Your task to perform on an android device: toggle translation in the chrome app Image 0: 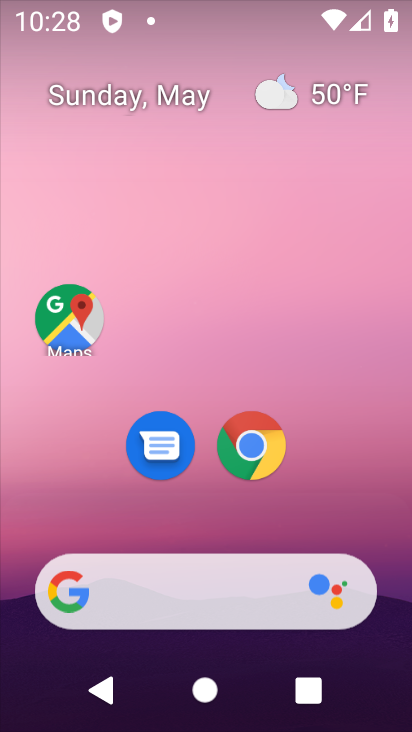
Step 0: click (260, 442)
Your task to perform on an android device: toggle translation in the chrome app Image 1: 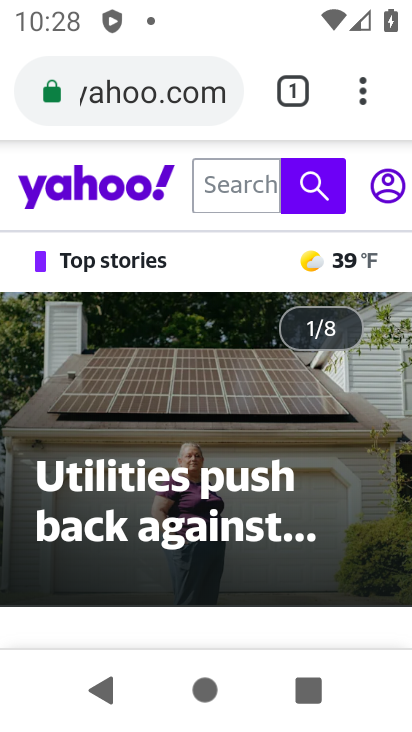
Step 1: click (374, 97)
Your task to perform on an android device: toggle translation in the chrome app Image 2: 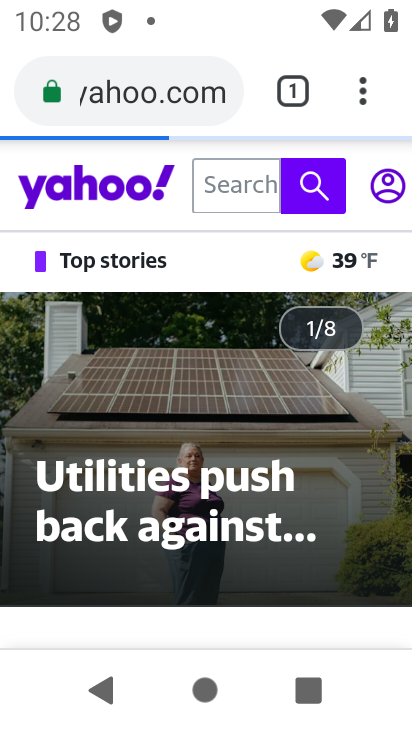
Step 2: click (356, 103)
Your task to perform on an android device: toggle translation in the chrome app Image 3: 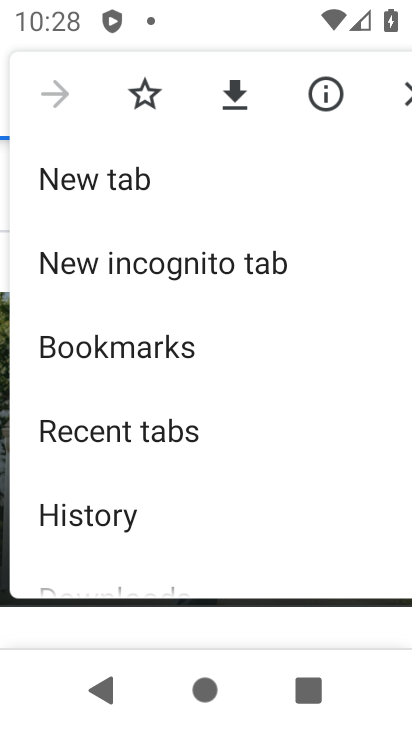
Step 3: drag from (174, 550) to (219, 213)
Your task to perform on an android device: toggle translation in the chrome app Image 4: 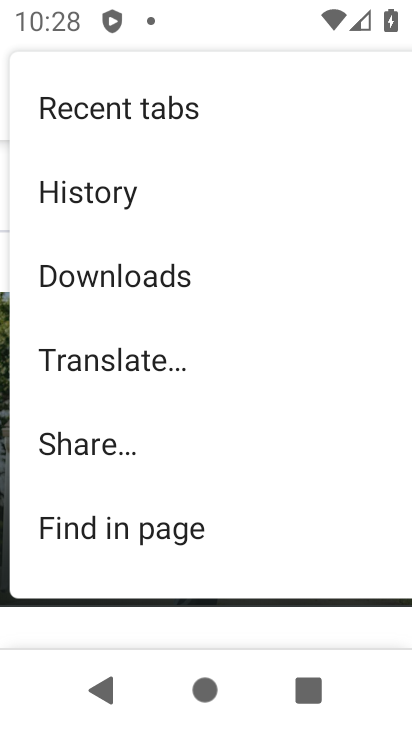
Step 4: drag from (142, 478) to (220, 179)
Your task to perform on an android device: toggle translation in the chrome app Image 5: 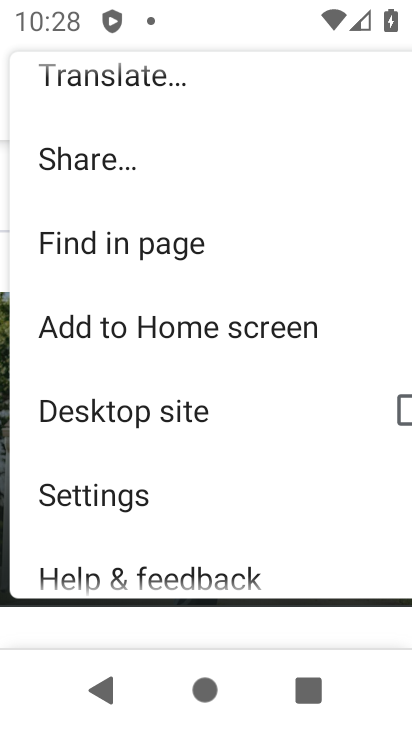
Step 5: click (127, 504)
Your task to perform on an android device: toggle translation in the chrome app Image 6: 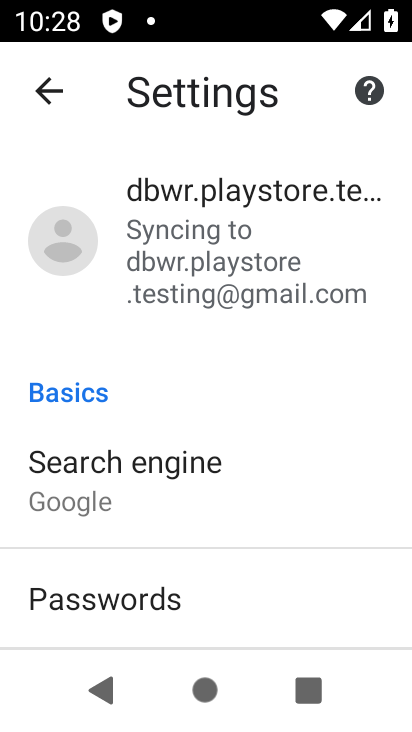
Step 6: drag from (151, 540) to (216, 42)
Your task to perform on an android device: toggle translation in the chrome app Image 7: 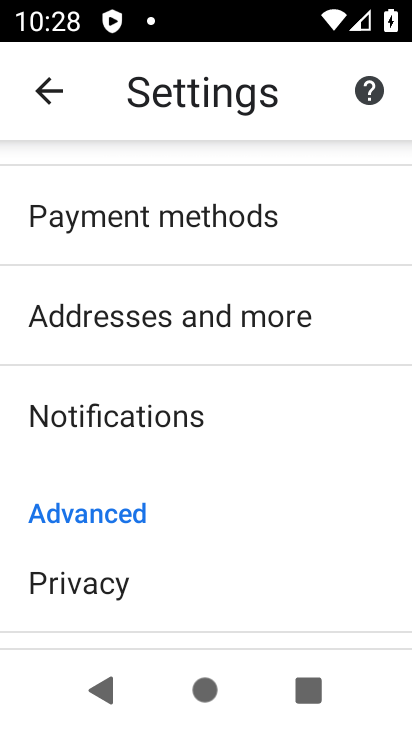
Step 7: drag from (164, 498) to (245, 218)
Your task to perform on an android device: toggle translation in the chrome app Image 8: 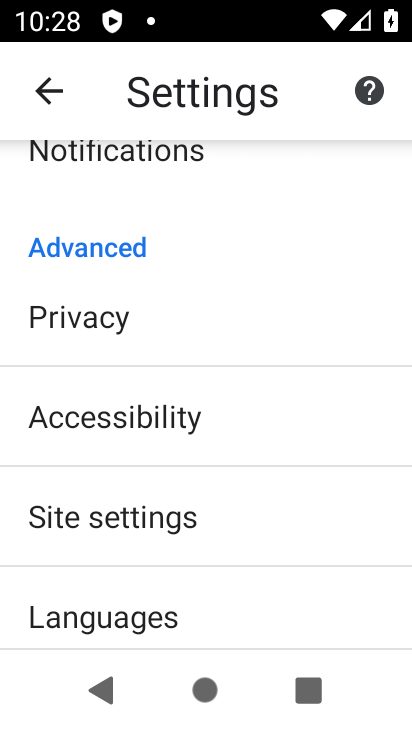
Step 8: click (157, 587)
Your task to perform on an android device: toggle translation in the chrome app Image 9: 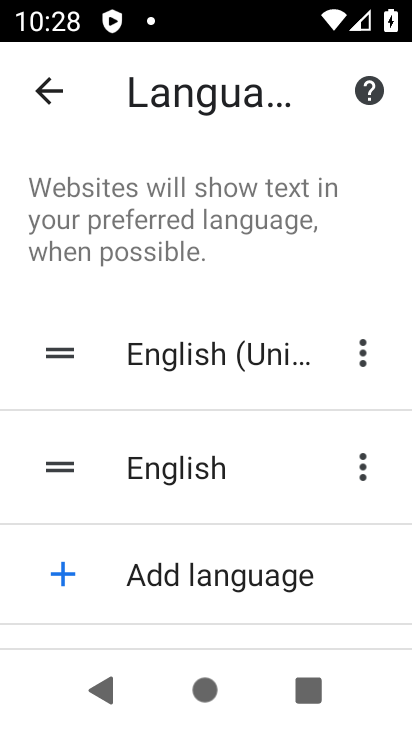
Step 9: drag from (199, 565) to (241, 323)
Your task to perform on an android device: toggle translation in the chrome app Image 10: 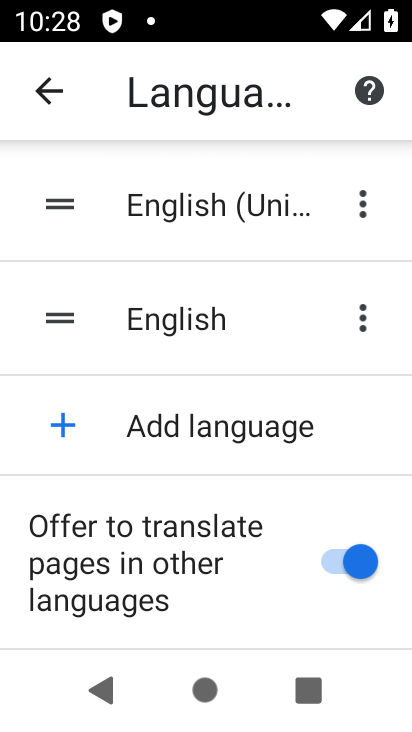
Step 10: drag from (203, 486) to (242, 305)
Your task to perform on an android device: toggle translation in the chrome app Image 11: 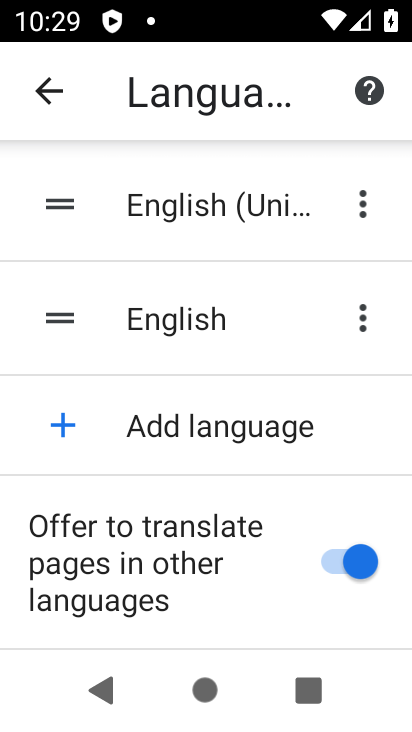
Step 11: click (288, 563)
Your task to perform on an android device: toggle translation in the chrome app Image 12: 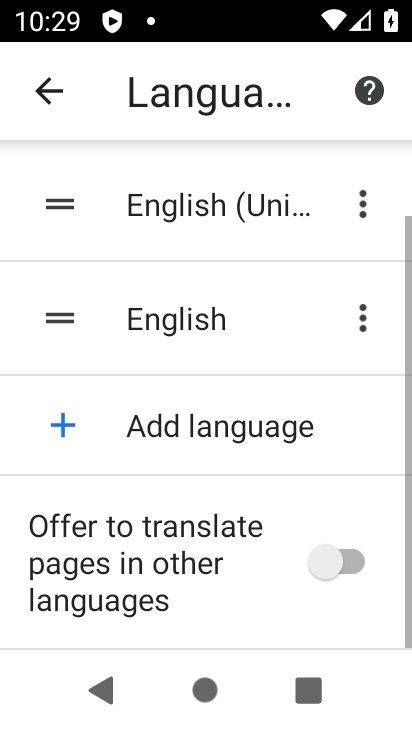
Step 12: task complete